Your task to perform on an android device: Open Wikipedia Image 0: 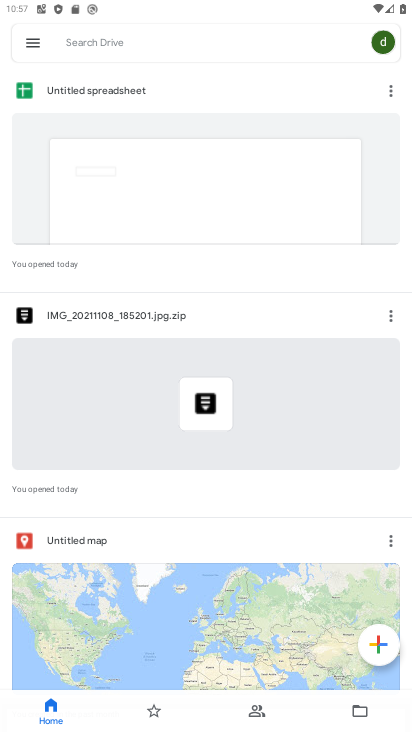
Step 0: press home button
Your task to perform on an android device: Open Wikipedia Image 1: 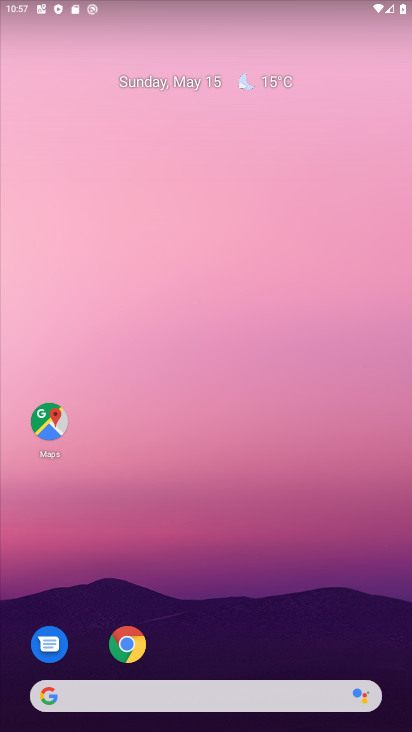
Step 1: click (117, 647)
Your task to perform on an android device: Open Wikipedia Image 2: 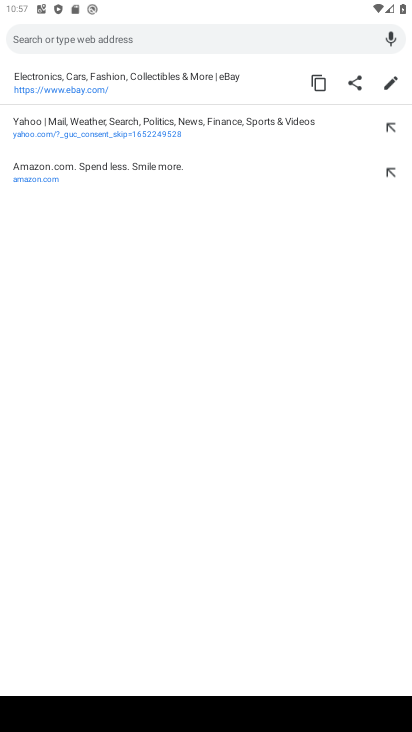
Step 2: click (297, 300)
Your task to perform on an android device: Open Wikipedia Image 3: 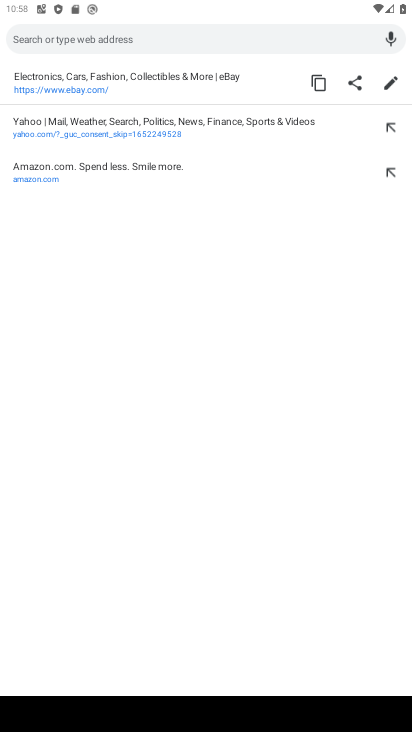
Step 3: press back button
Your task to perform on an android device: Open Wikipedia Image 4: 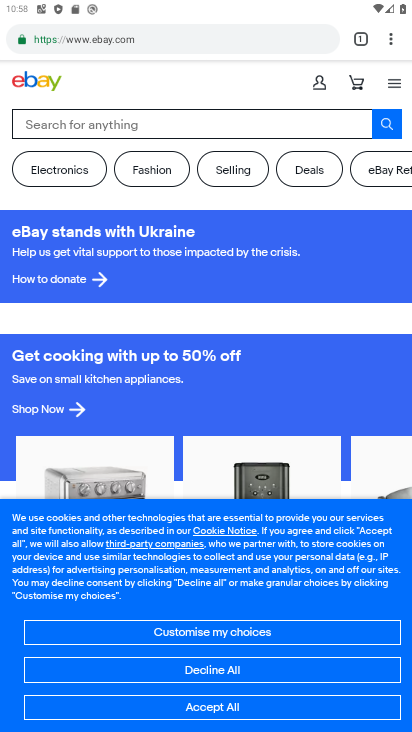
Step 4: click (364, 44)
Your task to perform on an android device: Open Wikipedia Image 5: 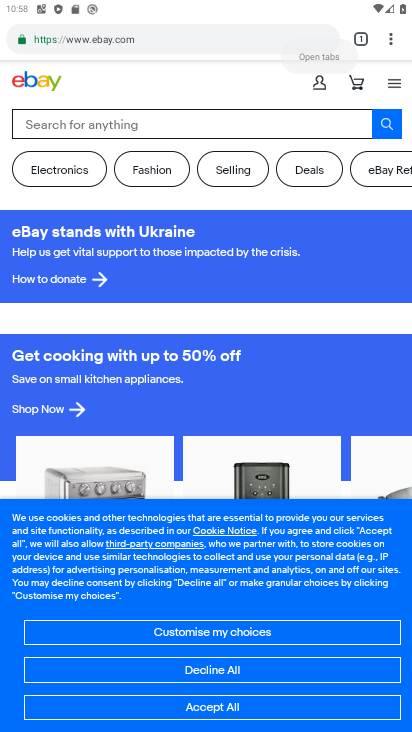
Step 5: click (359, 41)
Your task to perform on an android device: Open Wikipedia Image 6: 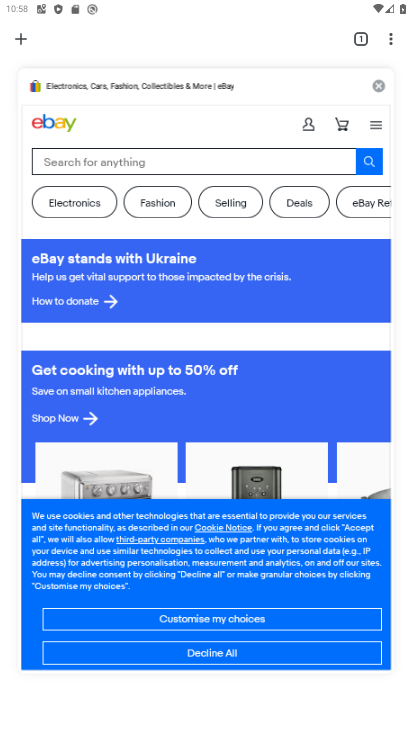
Step 6: click (376, 81)
Your task to perform on an android device: Open Wikipedia Image 7: 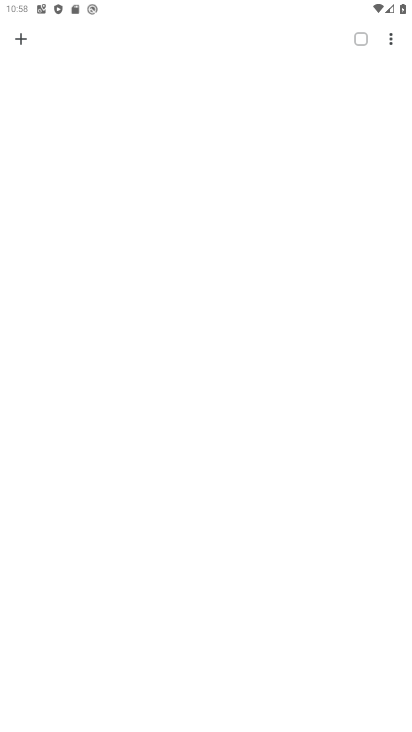
Step 7: click (17, 39)
Your task to perform on an android device: Open Wikipedia Image 8: 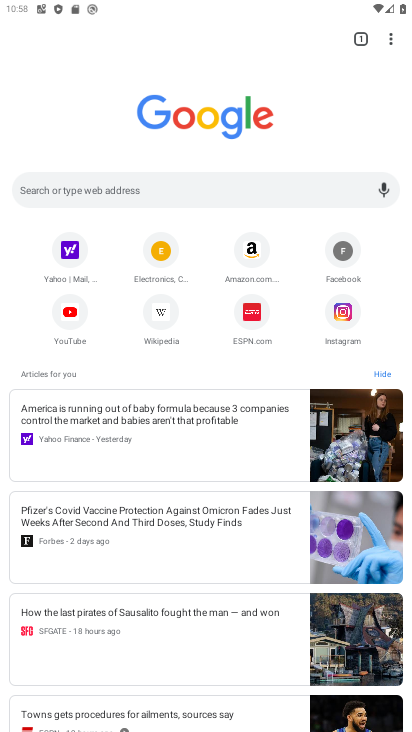
Step 8: click (171, 313)
Your task to perform on an android device: Open Wikipedia Image 9: 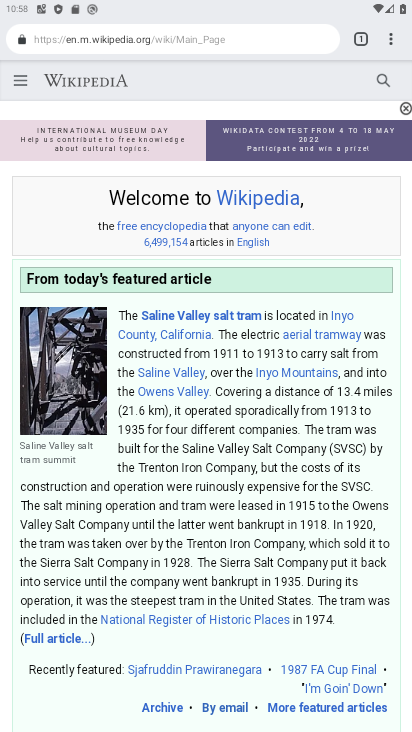
Step 9: task complete